Your task to perform on an android device: Go to ESPN.com Image 0: 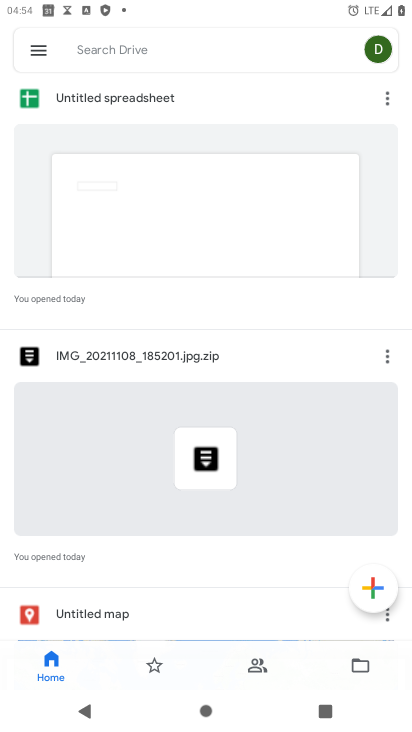
Step 0: press home button
Your task to perform on an android device: Go to ESPN.com Image 1: 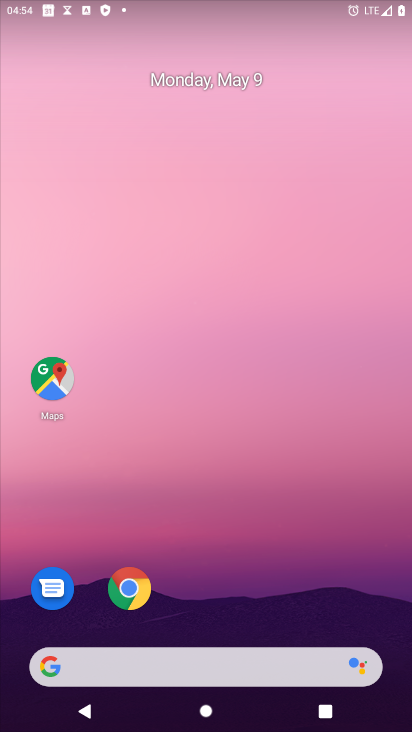
Step 1: click (128, 575)
Your task to perform on an android device: Go to ESPN.com Image 2: 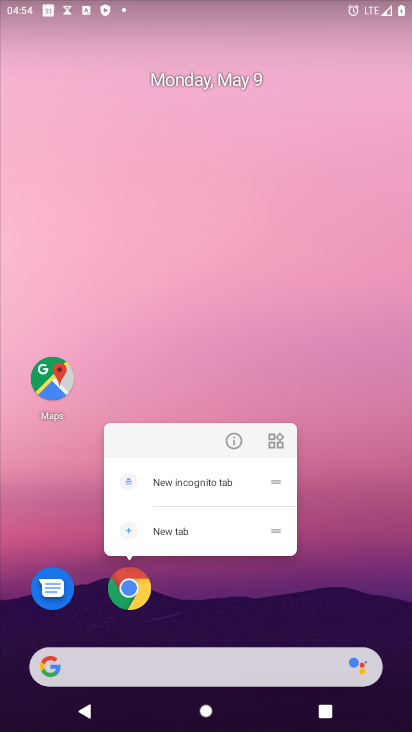
Step 2: click (129, 597)
Your task to perform on an android device: Go to ESPN.com Image 3: 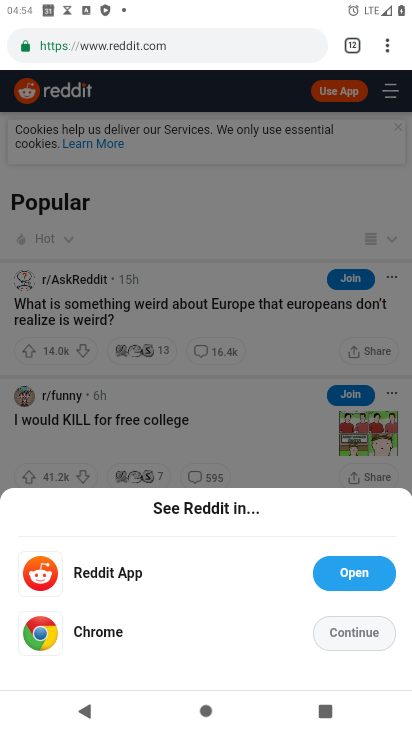
Step 3: click (360, 48)
Your task to perform on an android device: Go to ESPN.com Image 4: 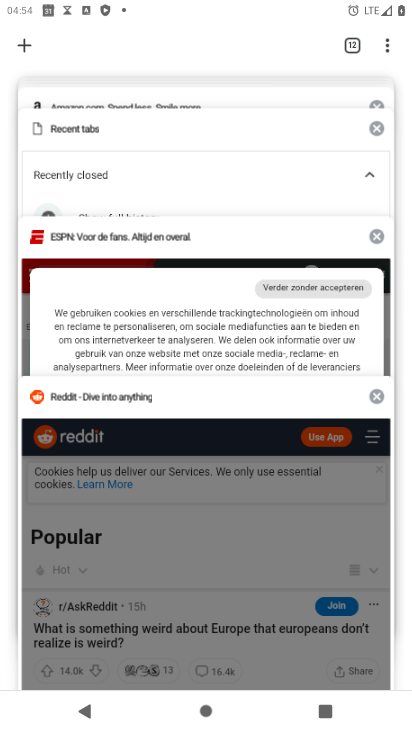
Step 4: click (107, 241)
Your task to perform on an android device: Go to ESPN.com Image 5: 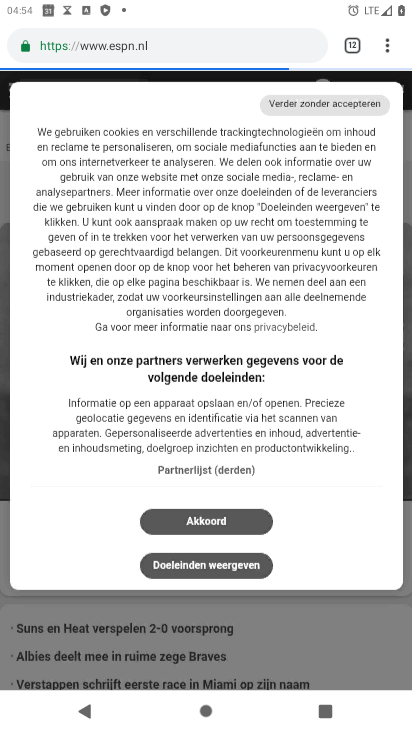
Step 5: task complete